Your task to perform on an android device: turn on sleep mode Image 0: 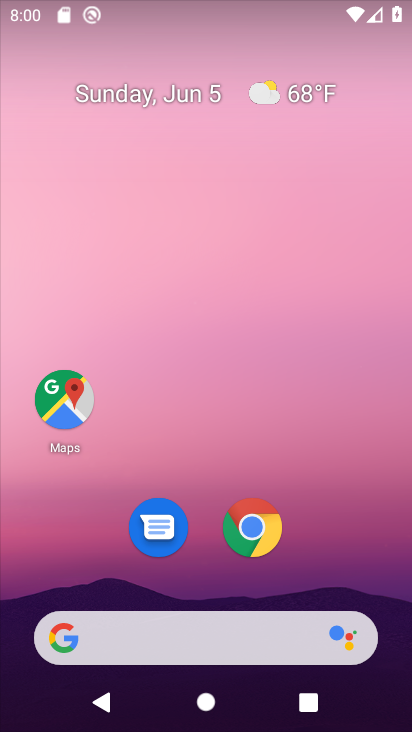
Step 0: drag from (355, 551) to (295, 13)
Your task to perform on an android device: turn on sleep mode Image 1: 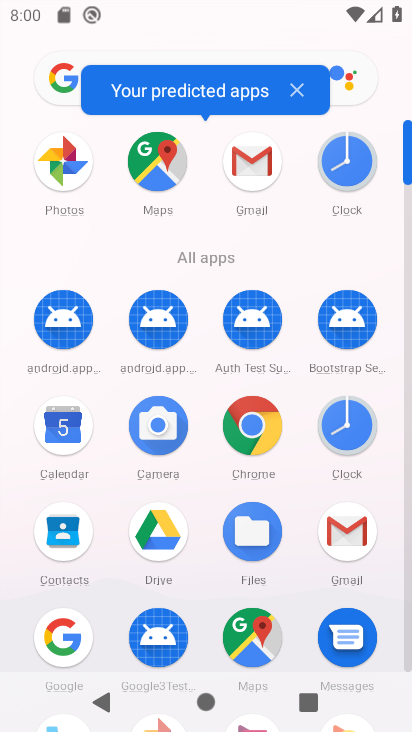
Step 1: drag from (393, 574) to (389, 129)
Your task to perform on an android device: turn on sleep mode Image 2: 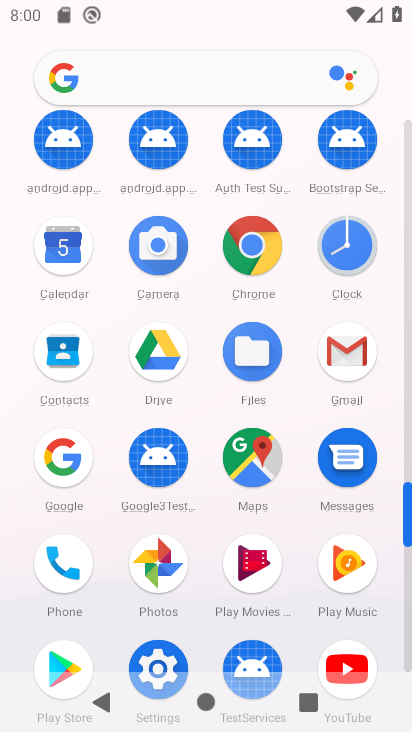
Step 2: click (149, 657)
Your task to perform on an android device: turn on sleep mode Image 3: 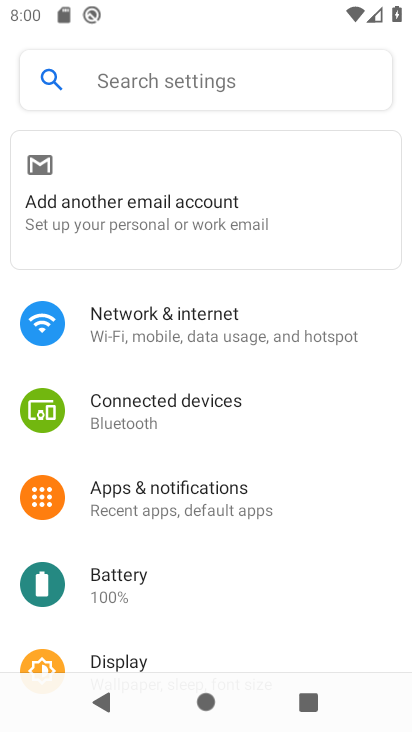
Step 3: drag from (242, 619) to (254, 294)
Your task to perform on an android device: turn on sleep mode Image 4: 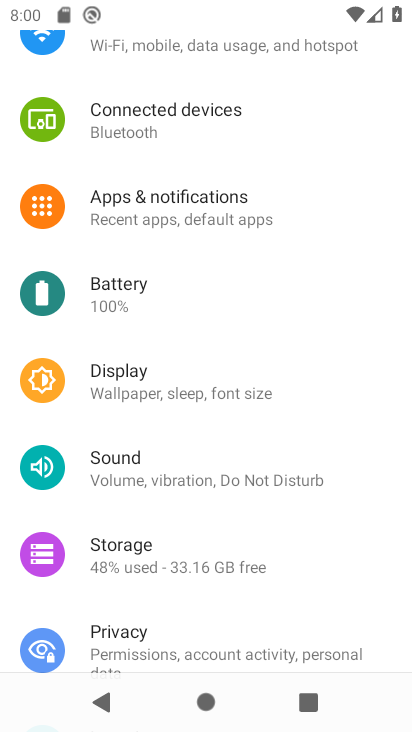
Step 4: click (71, 382)
Your task to perform on an android device: turn on sleep mode Image 5: 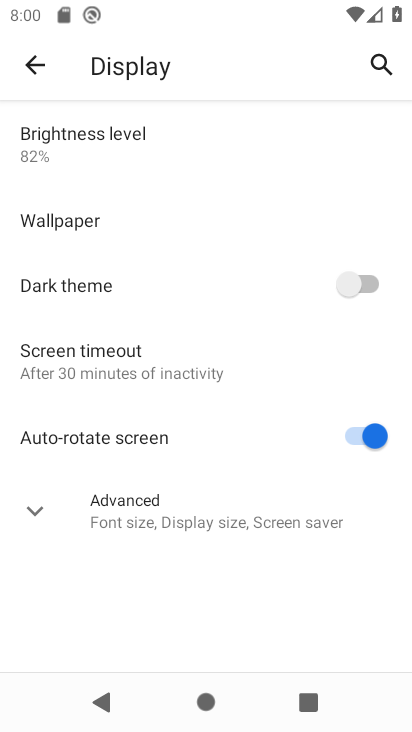
Step 5: click (78, 362)
Your task to perform on an android device: turn on sleep mode Image 6: 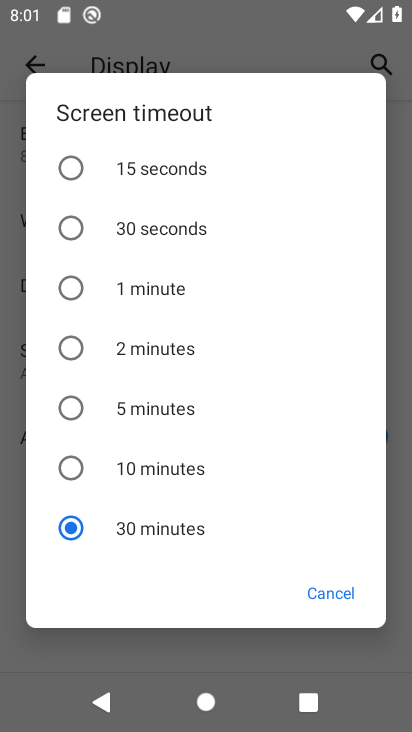
Step 6: task complete